Your task to perform on an android device: Go to Amazon Image 0: 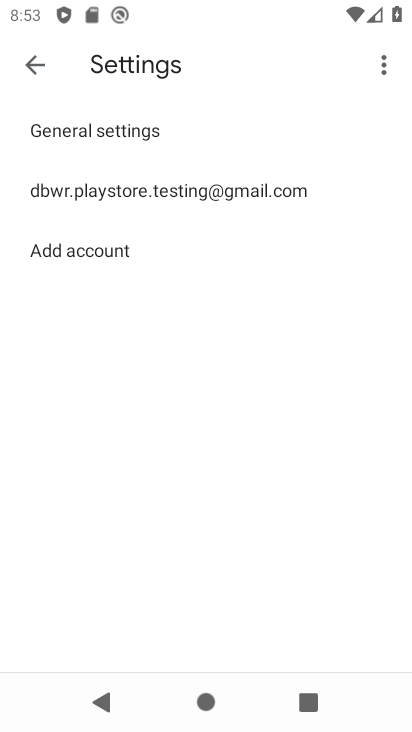
Step 0: press home button
Your task to perform on an android device: Go to Amazon Image 1: 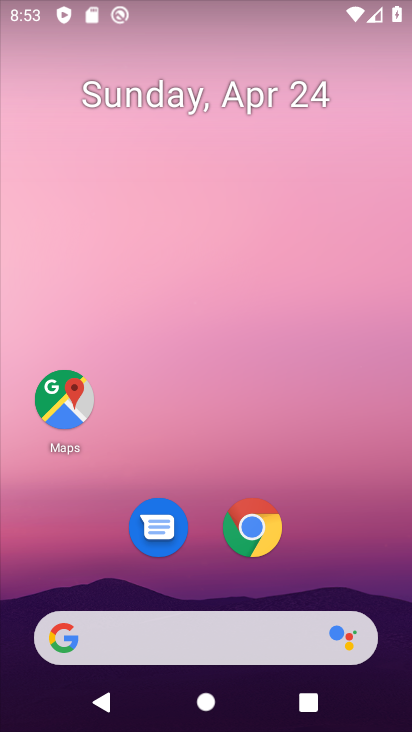
Step 1: drag from (392, 628) to (295, 150)
Your task to perform on an android device: Go to Amazon Image 2: 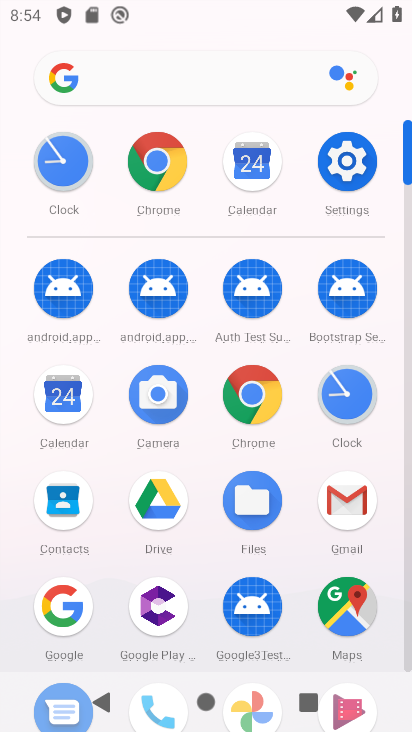
Step 2: click (245, 397)
Your task to perform on an android device: Go to Amazon Image 3: 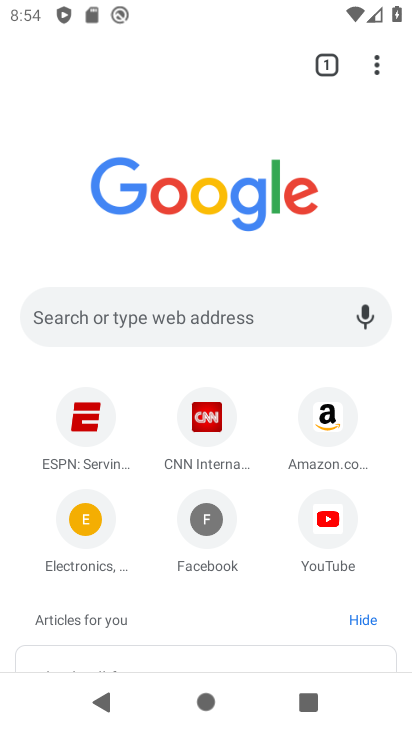
Step 3: click (337, 405)
Your task to perform on an android device: Go to Amazon Image 4: 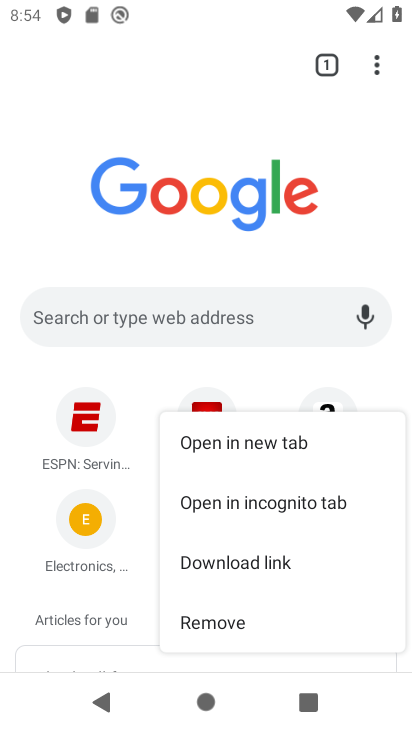
Step 4: click (313, 378)
Your task to perform on an android device: Go to Amazon Image 5: 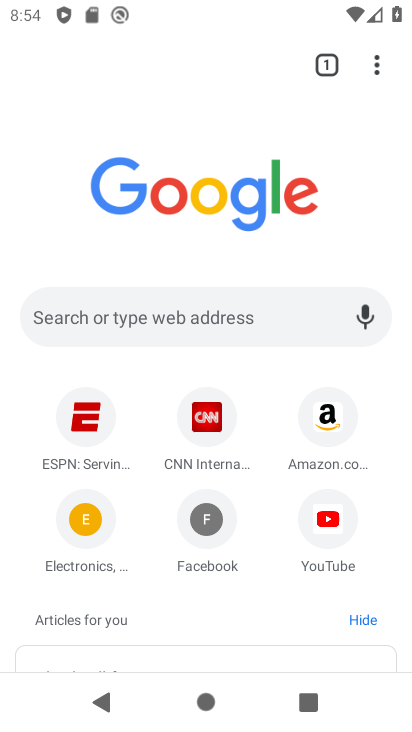
Step 5: click (336, 408)
Your task to perform on an android device: Go to Amazon Image 6: 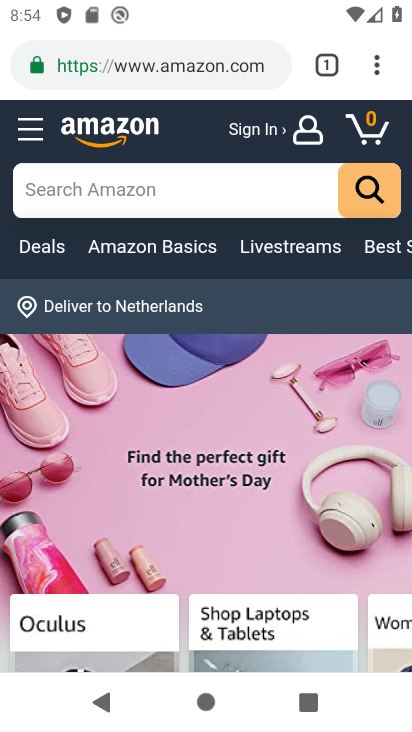
Step 6: task complete